Your task to perform on an android device: Go to CNN.com Image 0: 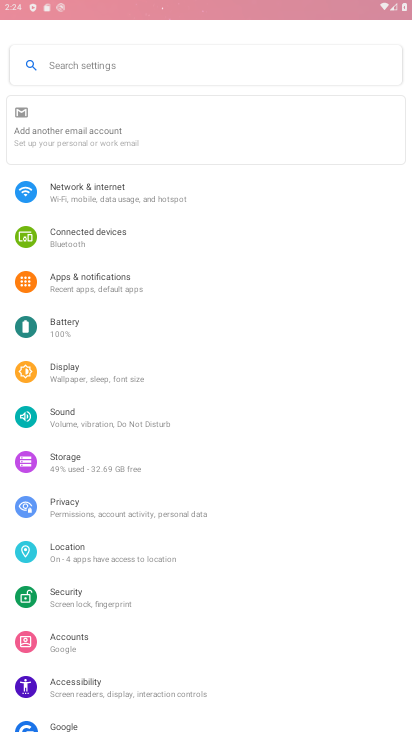
Step 0: press home button
Your task to perform on an android device: Go to CNN.com Image 1: 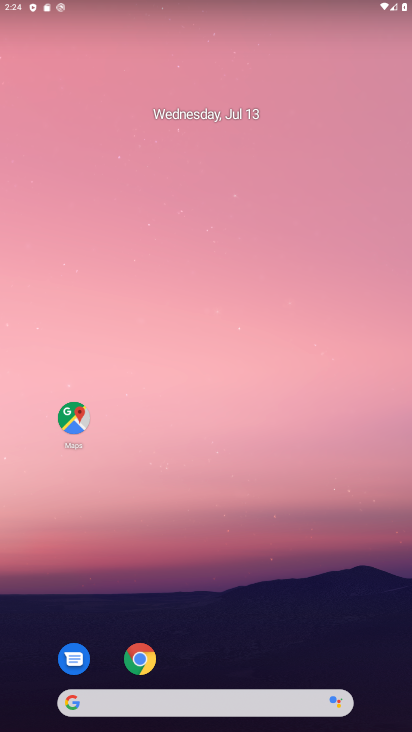
Step 1: click (137, 656)
Your task to perform on an android device: Go to CNN.com Image 2: 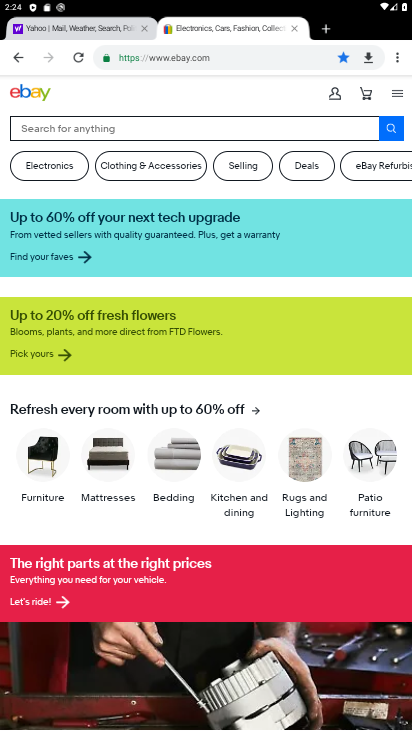
Step 2: click (323, 31)
Your task to perform on an android device: Go to CNN.com Image 3: 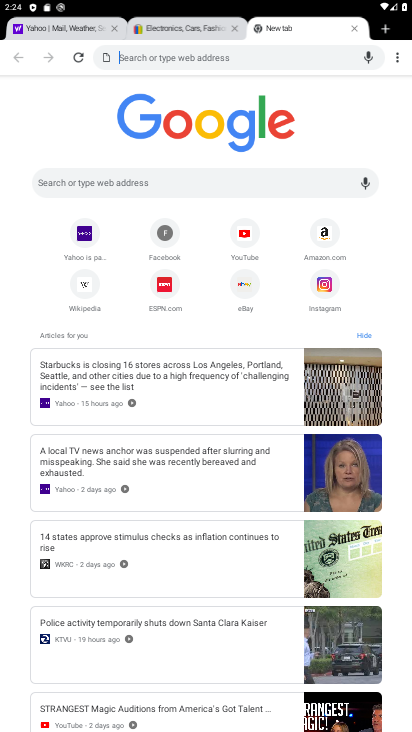
Step 3: click (230, 24)
Your task to perform on an android device: Go to CNN.com Image 4: 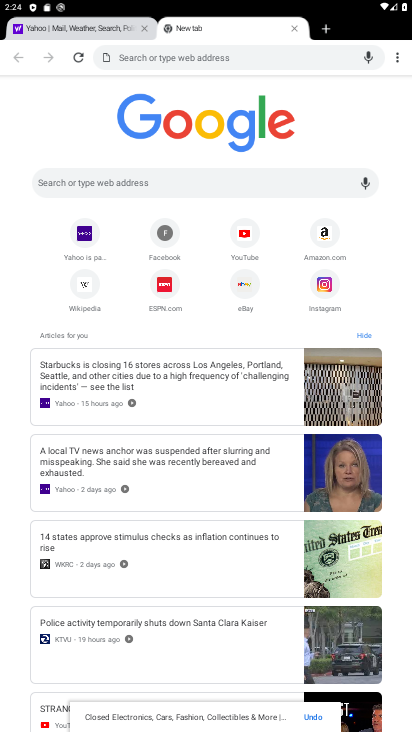
Step 4: click (144, 27)
Your task to perform on an android device: Go to CNN.com Image 5: 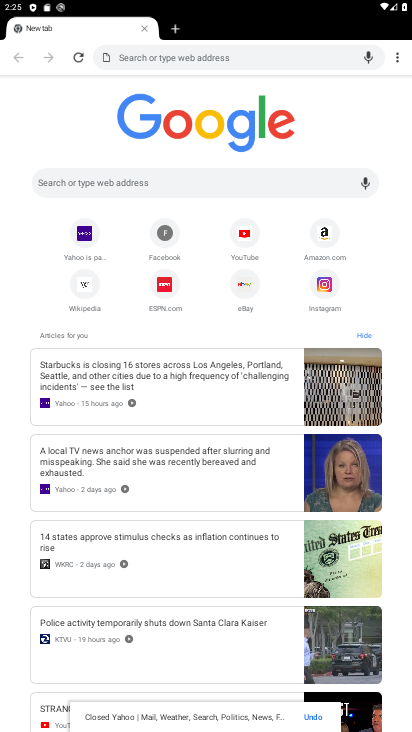
Step 5: click (162, 55)
Your task to perform on an android device: Go to CNN.com Image 6: 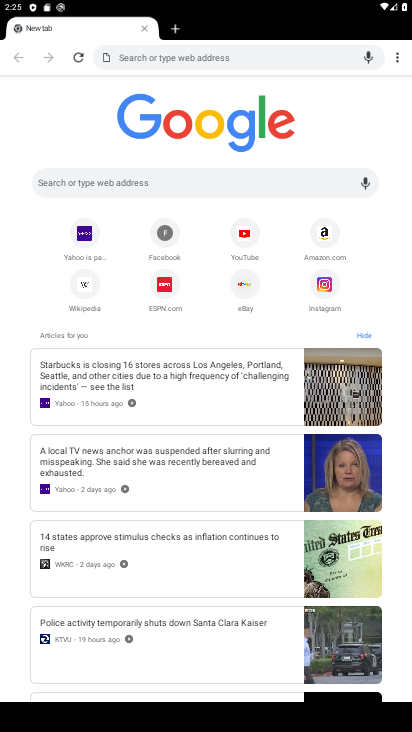
Step 6: type "cnn.com"
Your task to perform on an android device: Go to CNN.com Image 7: 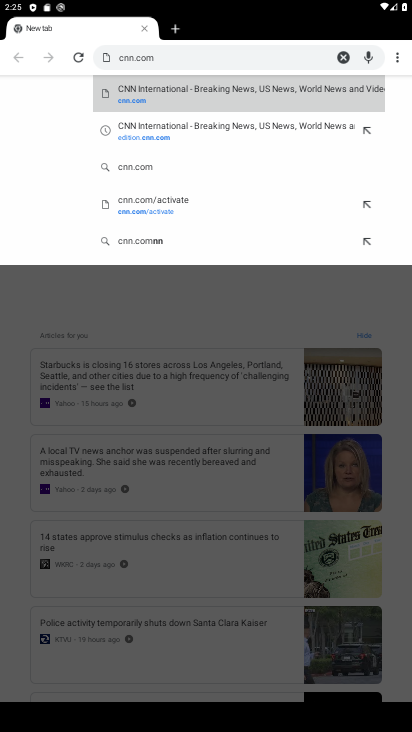
Step 7: click (172, 100)
Your task to perform on an android device: Go to CNN.com Image 8: 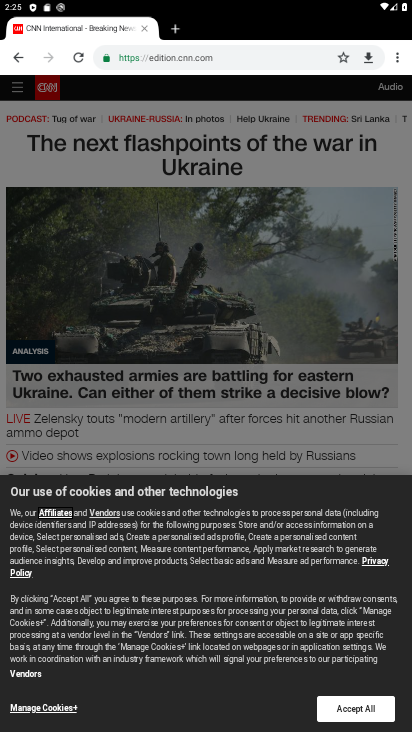
Step 8: click (355, 701)
Your task to perform on an android device: Go to CNN.com Image 9: 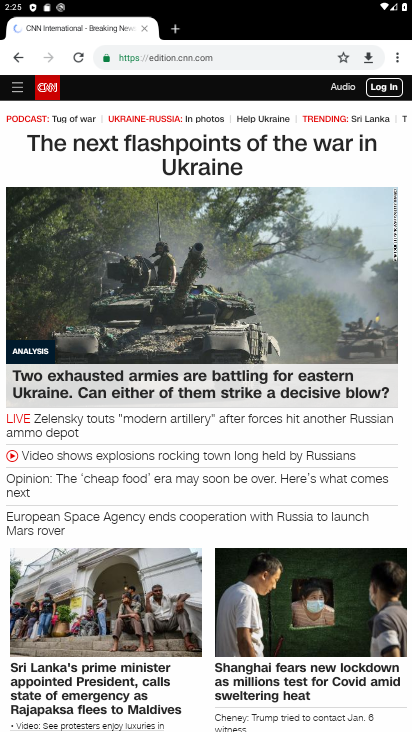
Step 9: task complete